Your task to perform on an android device: Open privacy settings Image 0: 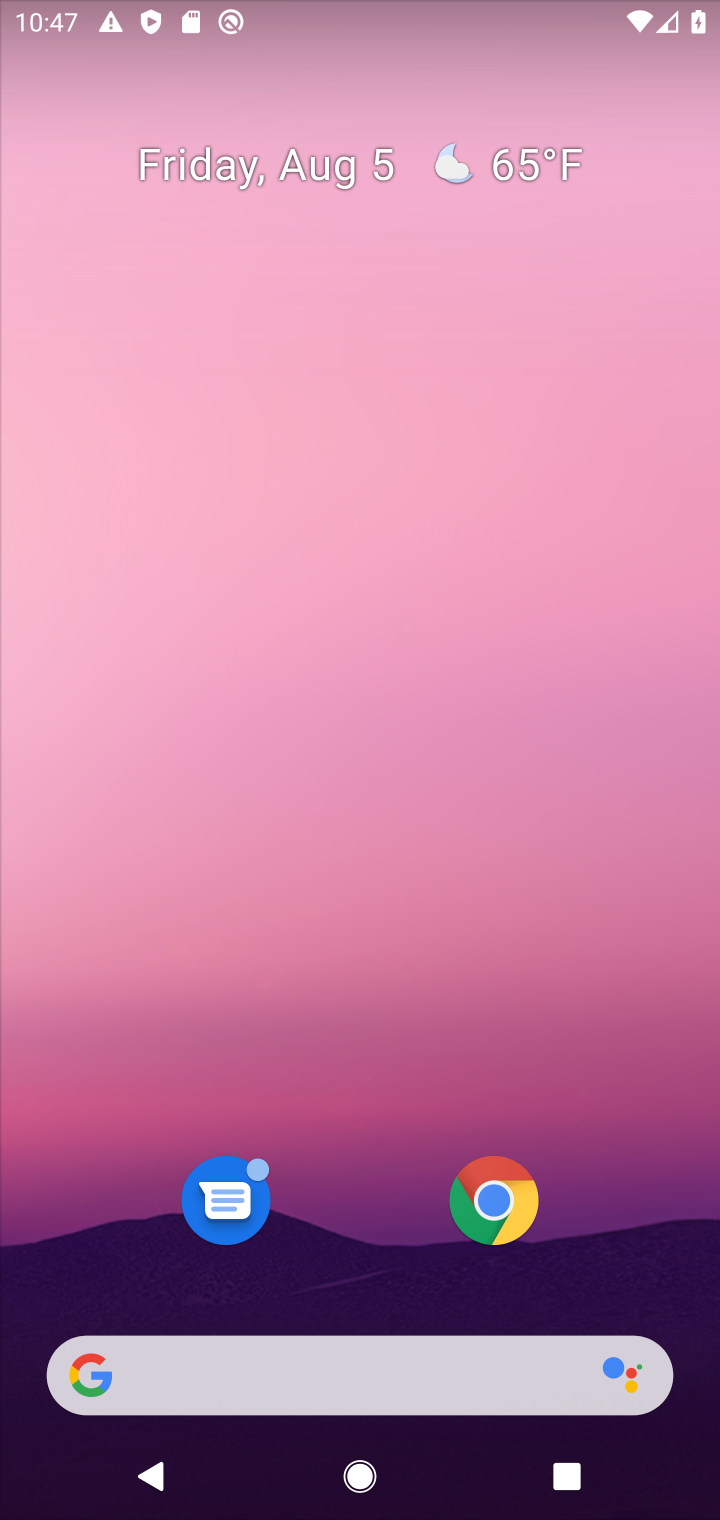
Step 0: drag from (197, 553) to (168, 230)
Your task to perform on an android device: Open privacy settings Image 1: 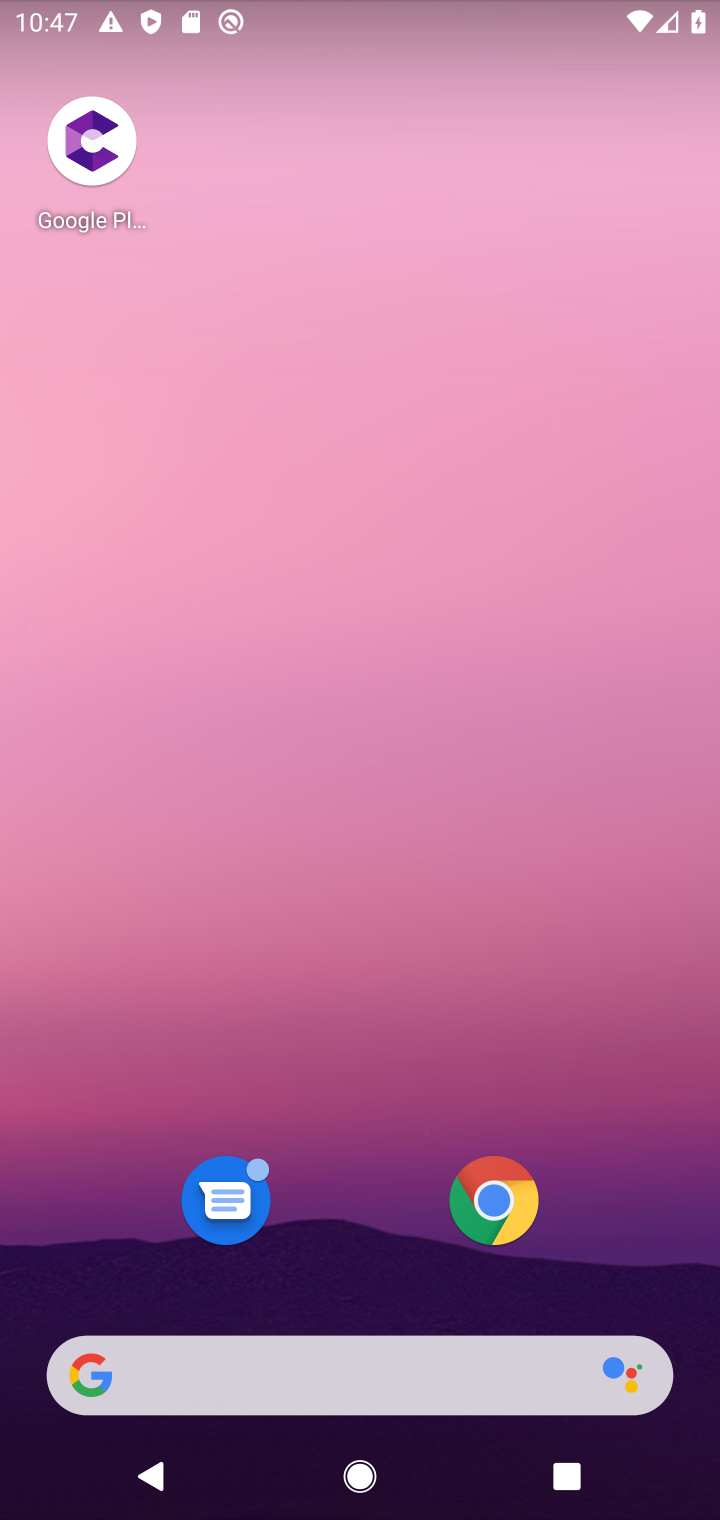
Step 1: drag from (370, 1066) to (425, 67)
Your task to perform on an android device: Open privacy settings Image 2: 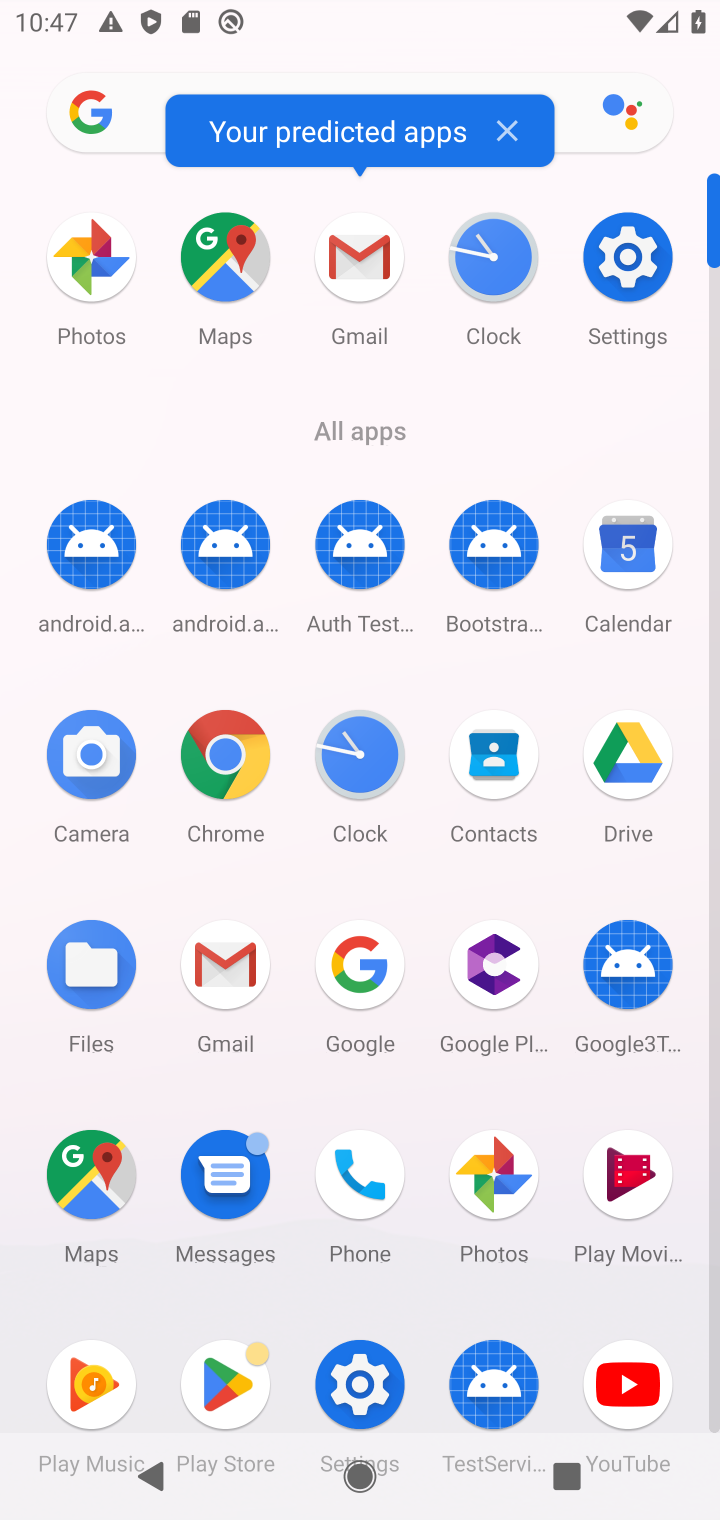
Step 2: click (654, 275)
Your task to perform on an android device: Open privacy settings Image 3: 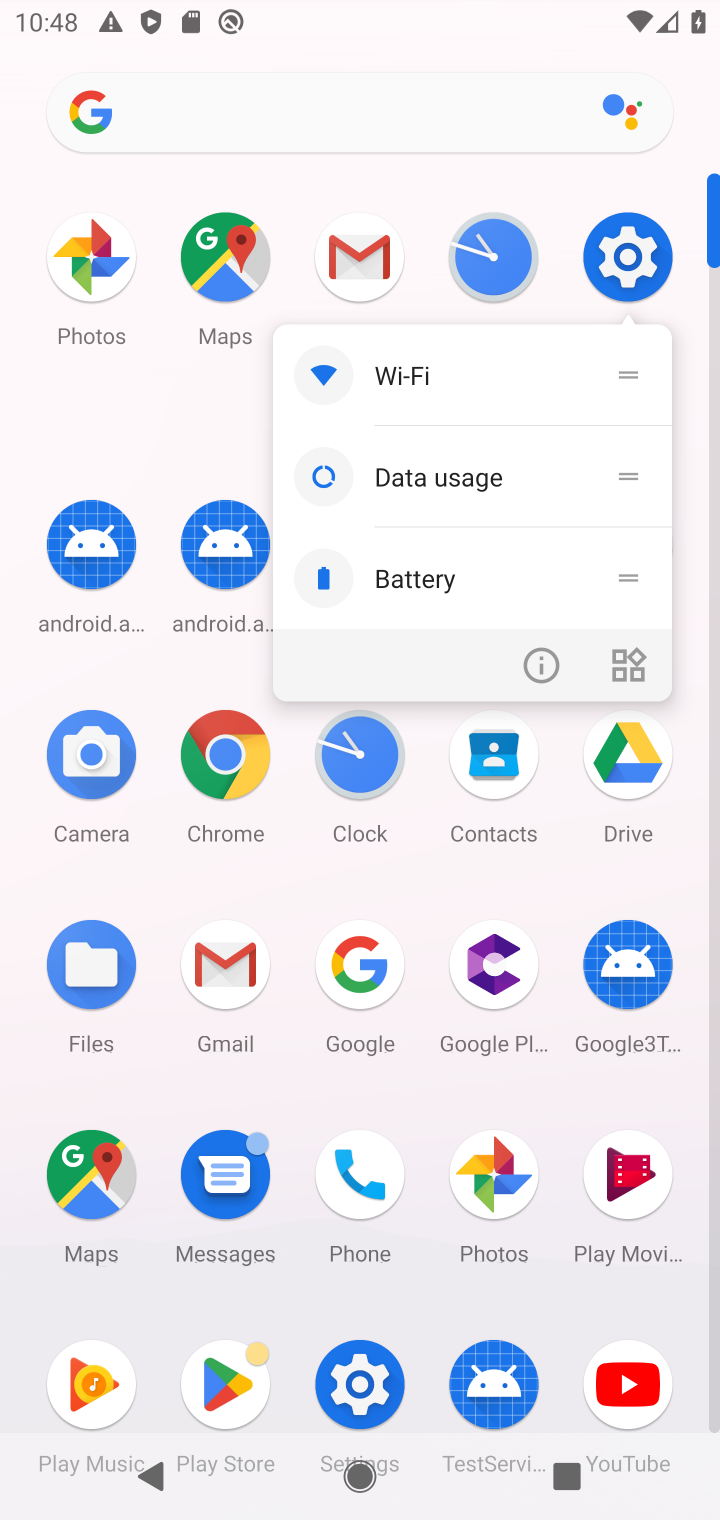
Step 3: click (634, 275)
Your task to perform on an android device: Open privacy settings Image 4: 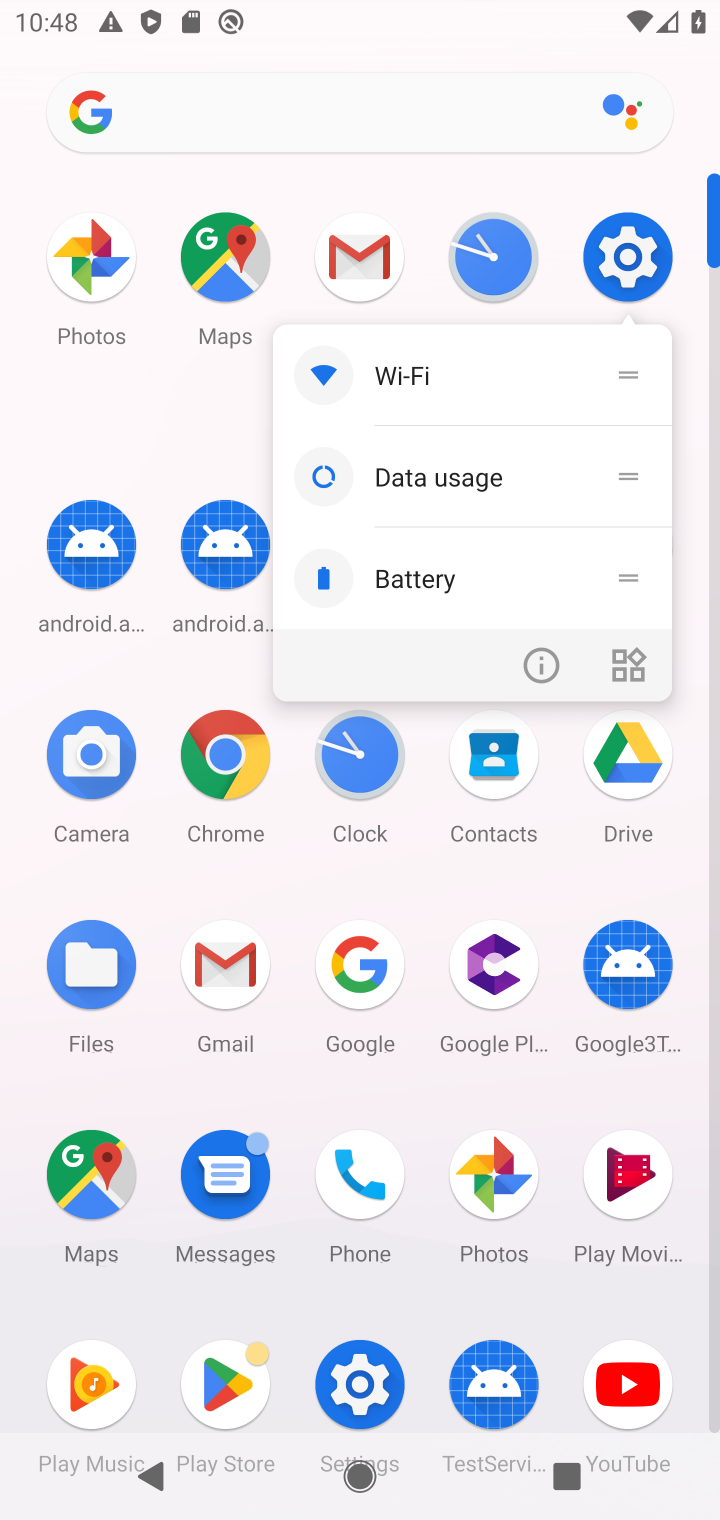
Step 4: click (602, 239)
Your task to perform on an android device: Open privacy settings Image 5: 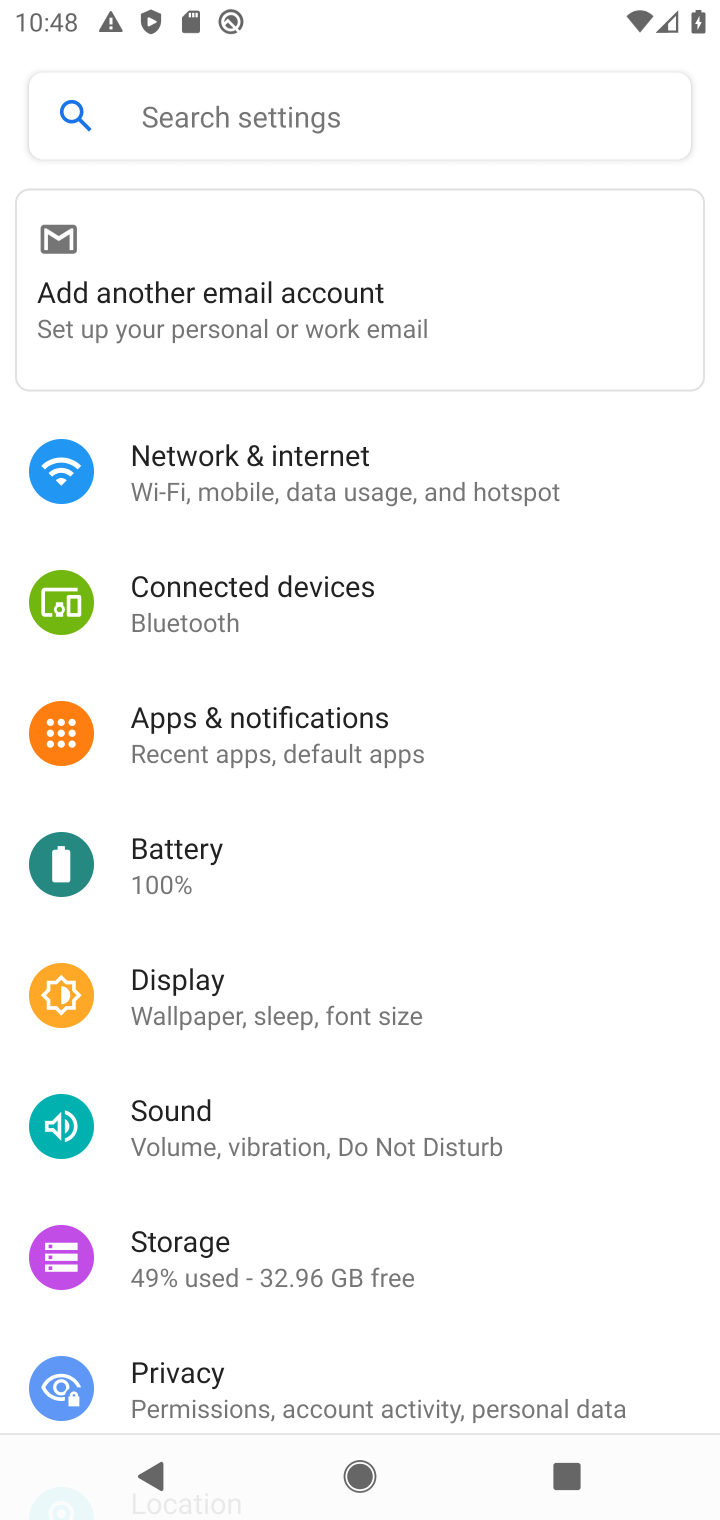
Step 5: drag from (440, 1094) to (431, 378)
Your task to perform on an android device: Open privacy settings Image 6: 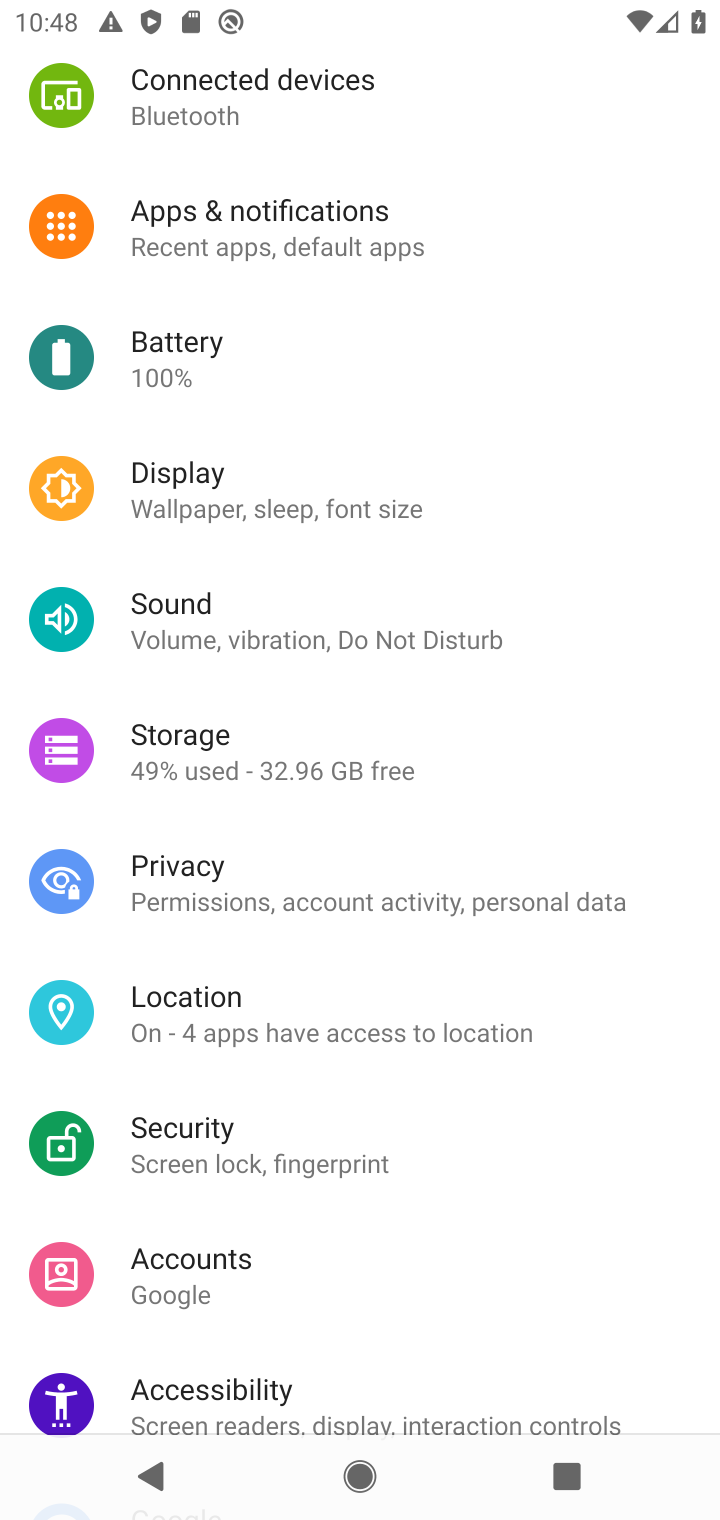
Step 6: click (278, 914)
Your task to perform on an android device: Open privacy settings Image 7: 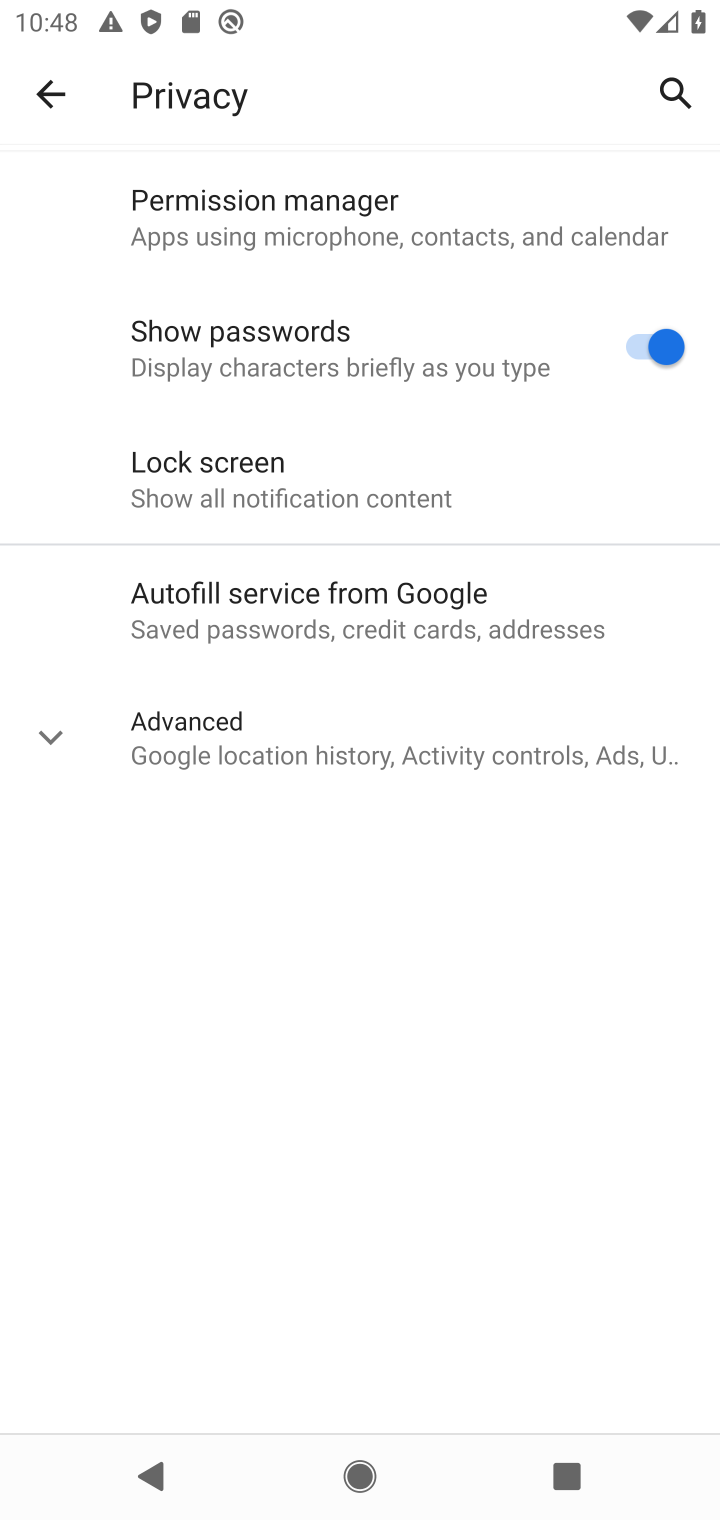
Step 7: task complete